Your task to perform on an android device: snooze an email in the gmail app Image 0: 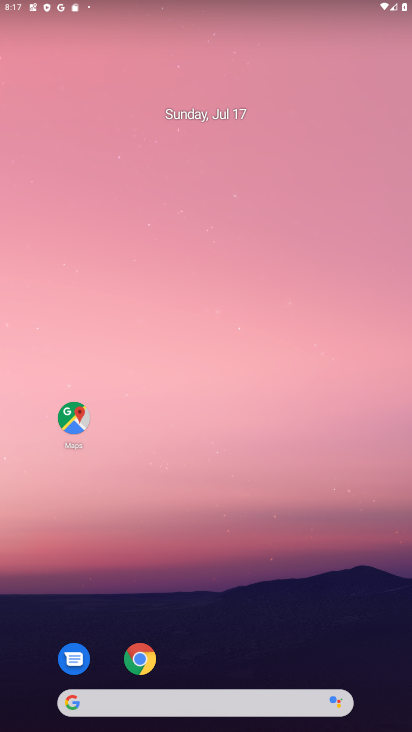
Step 0: drag from (233, 604) to (201, 216)
Your task to perform on an android device: snooze an email in the gmail app Image 1: 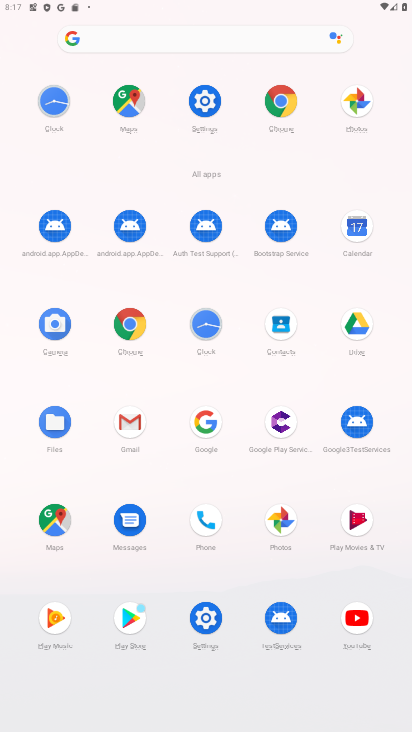
Step 1: click (130, 423)
Your task to perform on an android device: snooze an email in the gmail app Image 2: 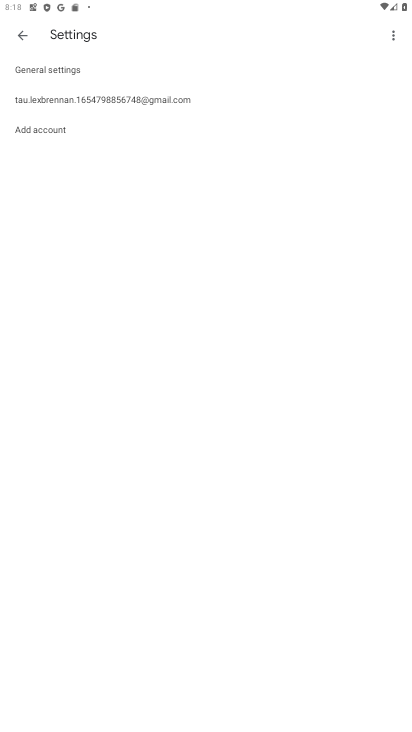
Step 2: click (18, 33)
Your task to perform on an android device: snooze an email in the gmail app Image 3: 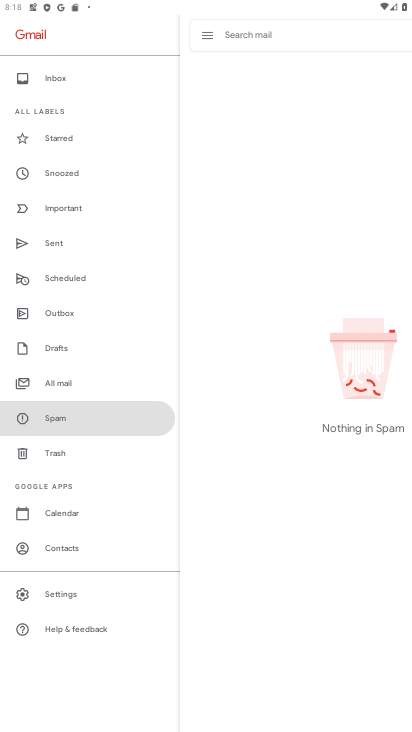
Step 3: click (59, 164)
Your task to perform on an android device: snooze an email in the gmail app Image 4: 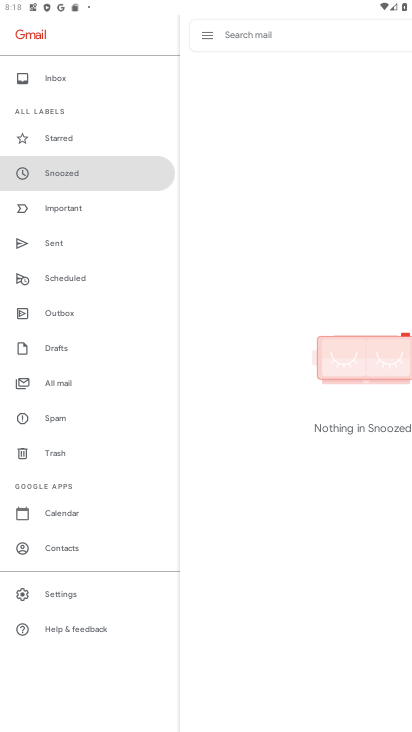
Step 4: click (57, 170)
Your task to perform on an android device: snooze an email in the gmail app Image 5: 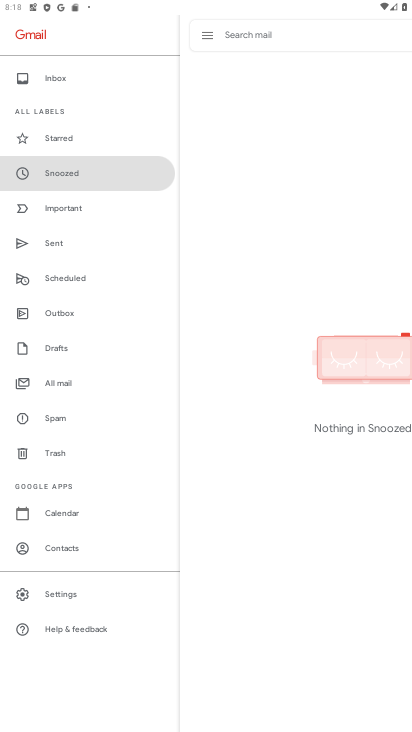
Step 5: task complete